Your task to perform on an android device: What's the weather? Image 0: 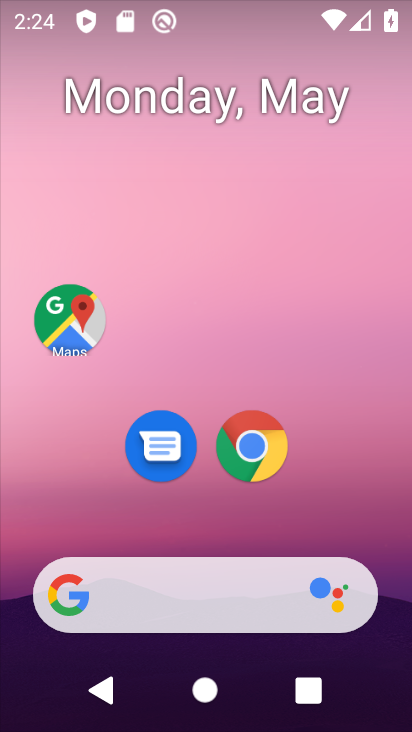
Step 0: click (162, 587)
Your task to perform on an android device: What's the weather? Image 1: 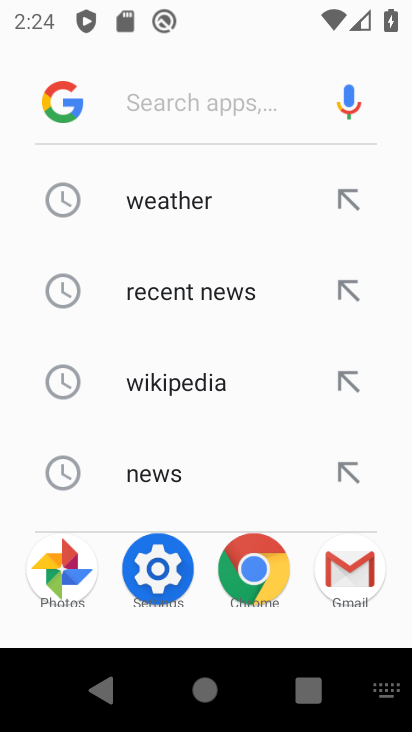
Step 1: click (183, 197)
Your task to perform on an android device: What's the weather? Image 2: 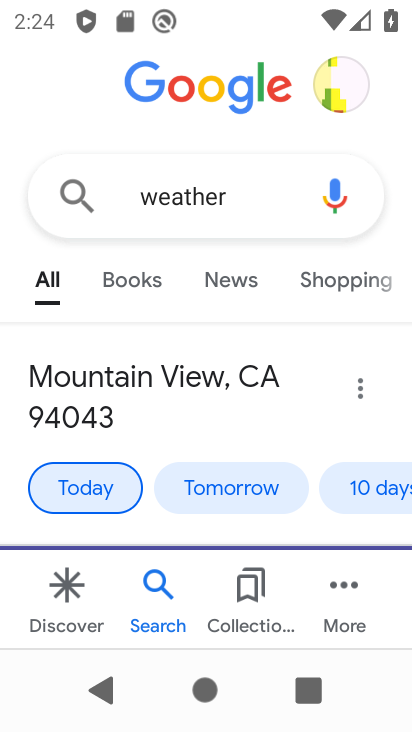
Step 2: task complete